Your task to perform on an android device: Empty the shopping cart on ebay.com. Add "macbook pro" to the cart on ebay.com, then select checkout. Image 0: 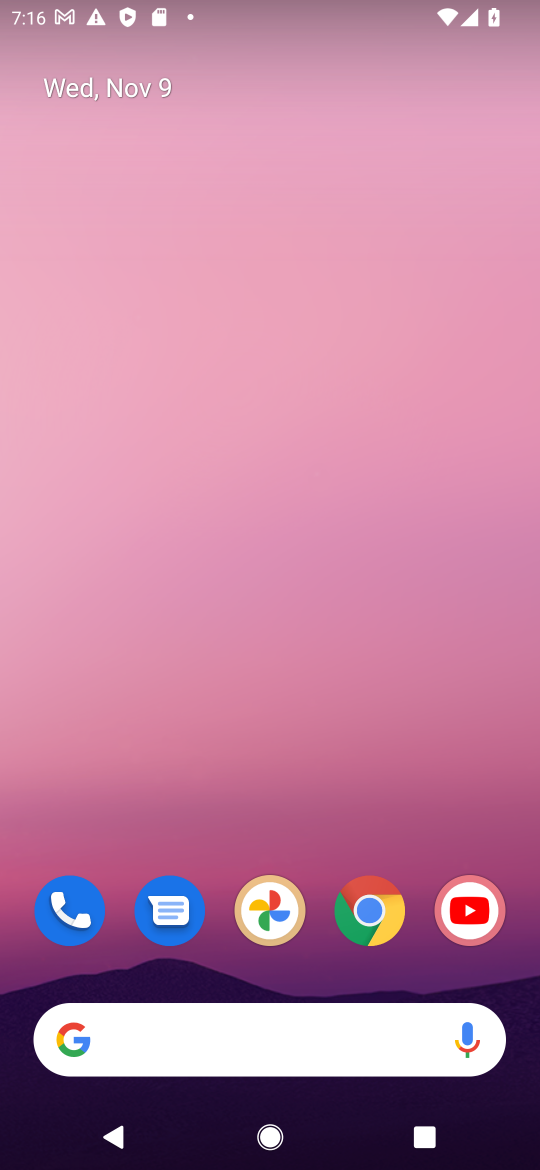
Step 0: click (368, 917)
Your task to perform on an android device: Empty the shopping cart on ebay.com. Add "macbook pro" to the cart on ebay.com, then select checkout. Image 1: 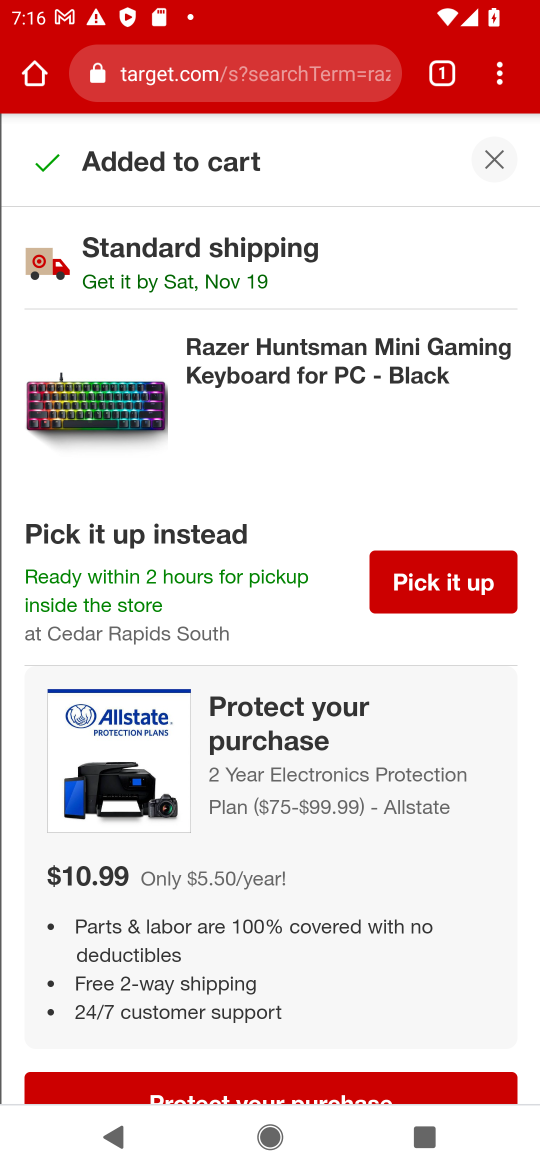
Step 1: click (215, 66)
Your task to perform on an android device: Empty the shopping cart on ebay.com. Add "macbook pro" to the cart on ebay.com, then select checkout. Image 2: 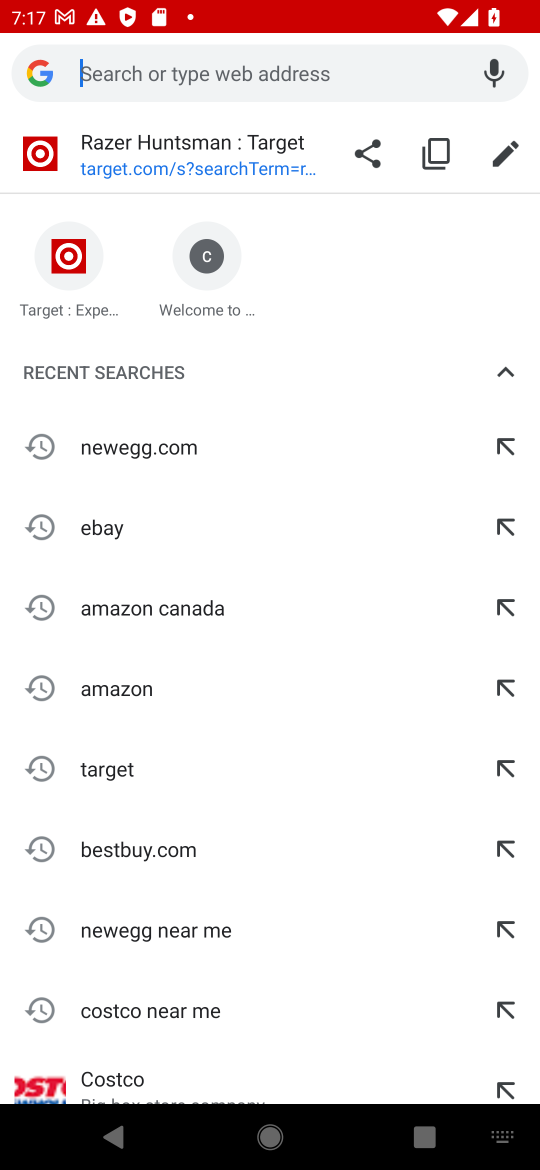
Step 2: type "ebay.com"
Your task to perform on an android device: Empty the shopping cart on ebay.com. Add "macbook pro" to the cart on ebay.com, then select checkout. Image 3: 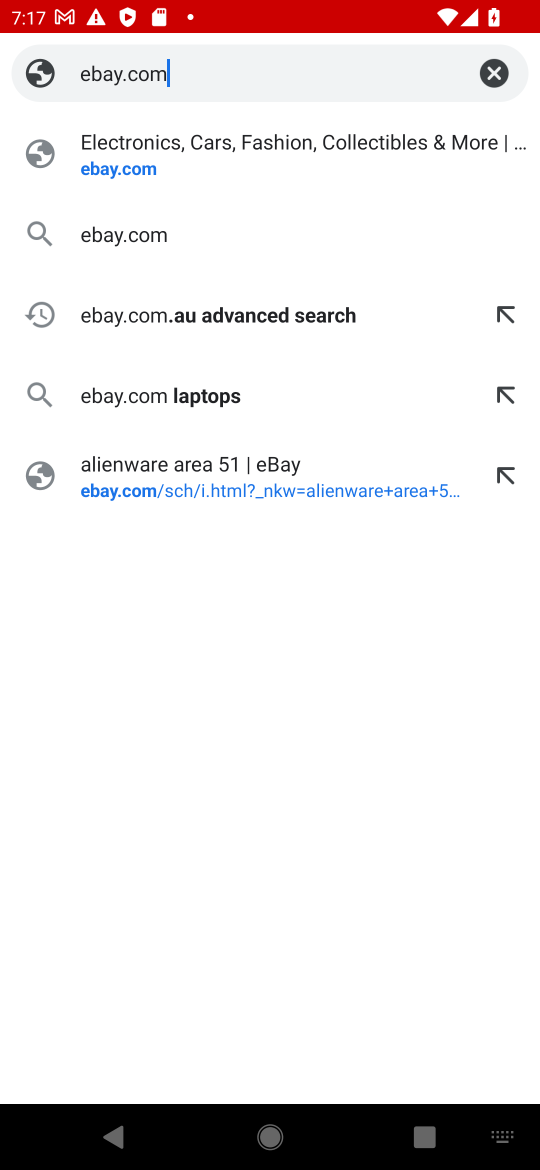
Step 3: click (105, 162)
Your task to perform on an android device: Empty the shopping cart on ebay.com. Add "macbook pro" to the cart on ebay.com, then select checkout. Image 4: 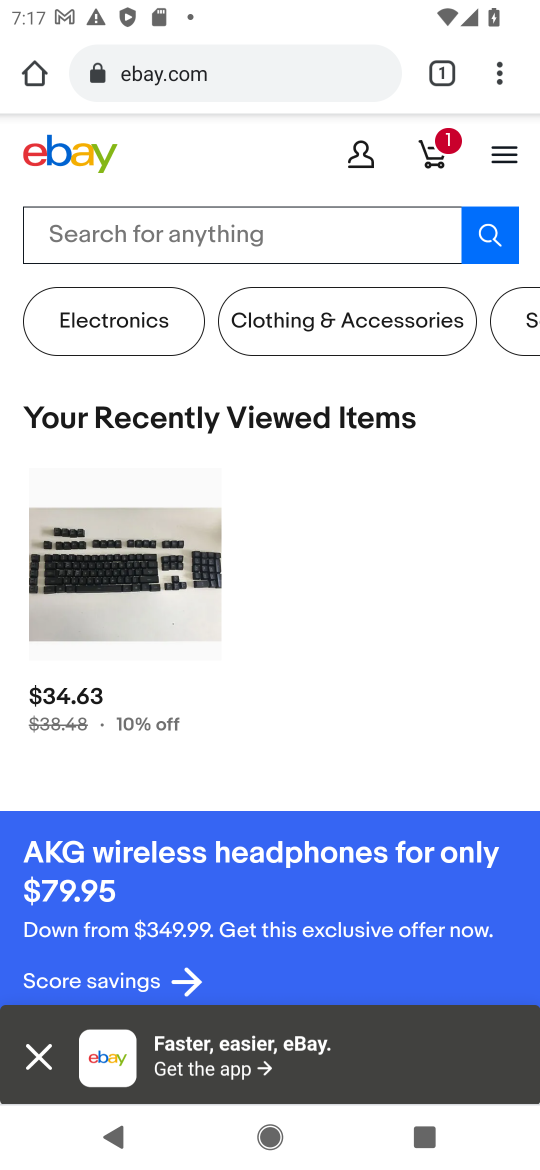
Step 4: click (440, 161)
Your task to perform on an android device: Empty the shopping cart on ebay.com. Add "macbook pro" to the cart on ebay.com, then select checkout. Image 5: 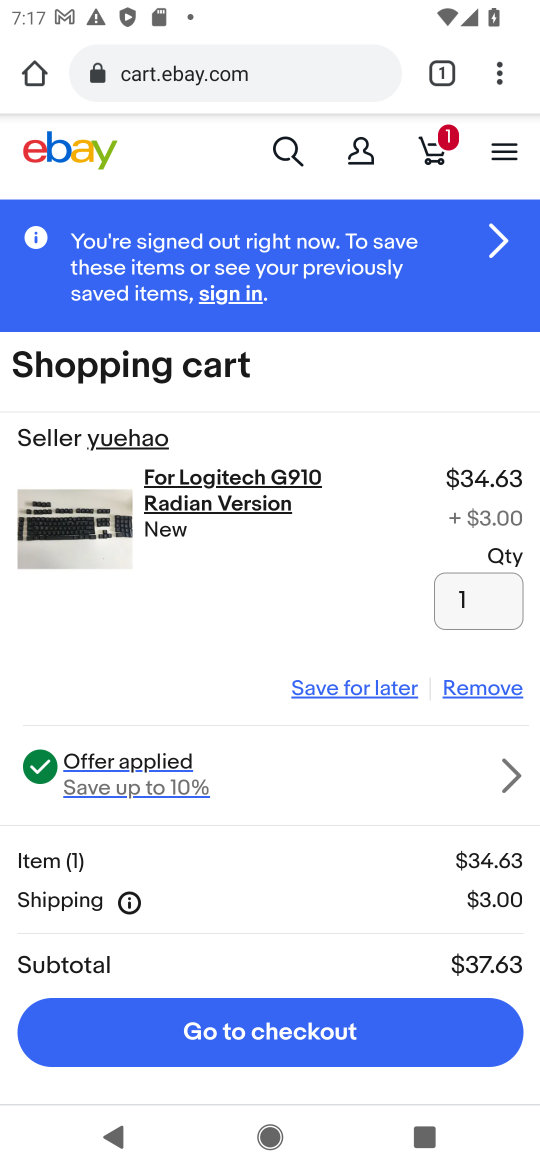
Step 5: click (455, 690)
Your task to perform on an android device: Empty the shopping cart on ebay.com. Add "macbook pro" to the cart on ebay.com, then select checkout. Image 6: 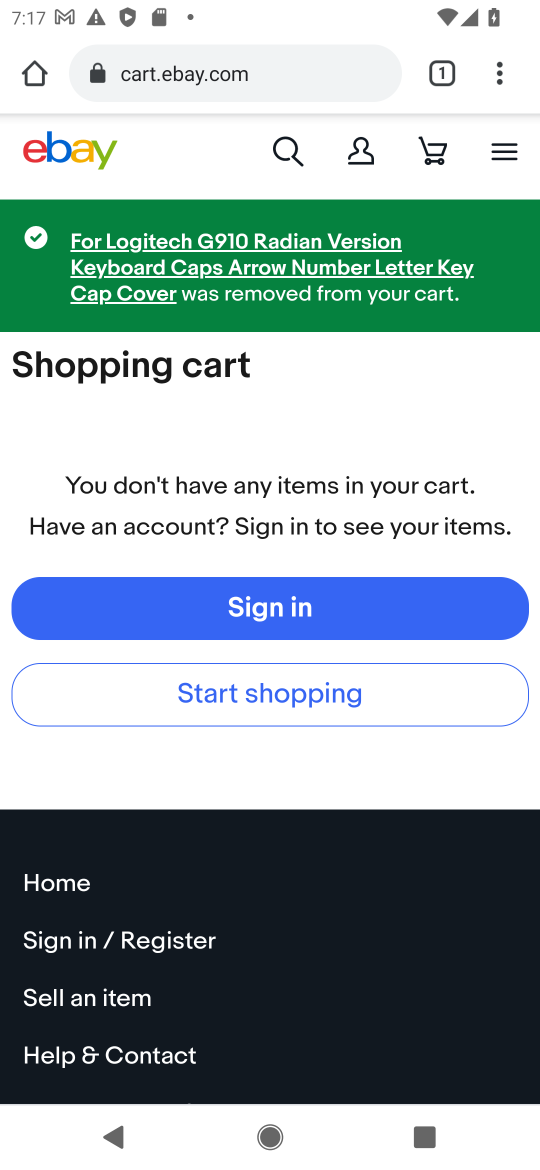
Step 6: click (279, 148)
Your task to perform on an android device: Empty the shopping cart on ebay.com. Add "macbook pro" to the cart on ebay.com, then select checkout. Image 7: 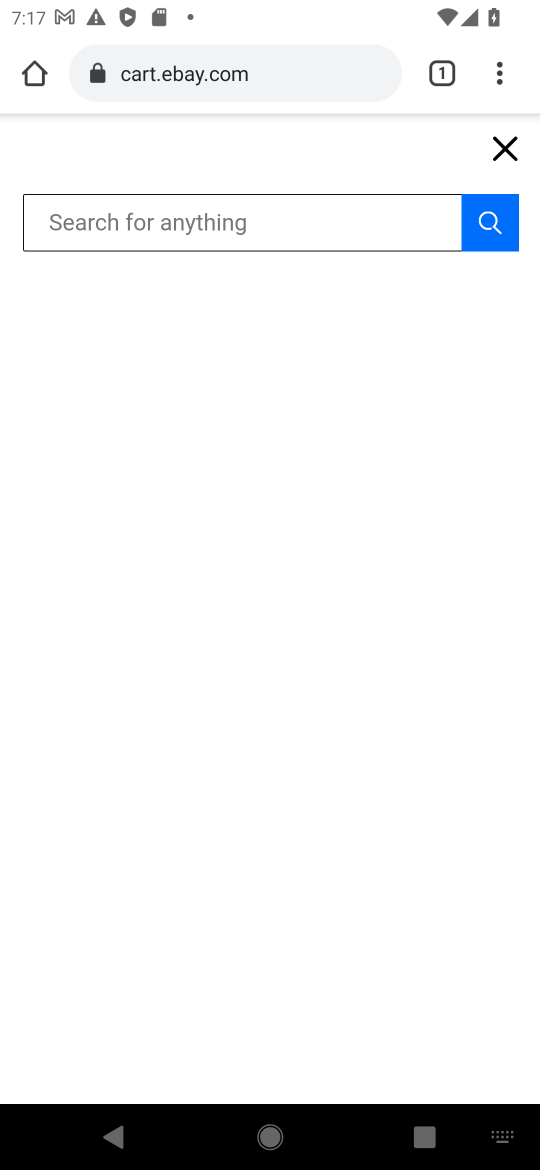
Step 7: type "macbook pro"
Your task to perform on an android device: Empty the shopping cart on ebay.com. Add "macbook pro" to the cart on ebay.com, then select checkout. Image 8: 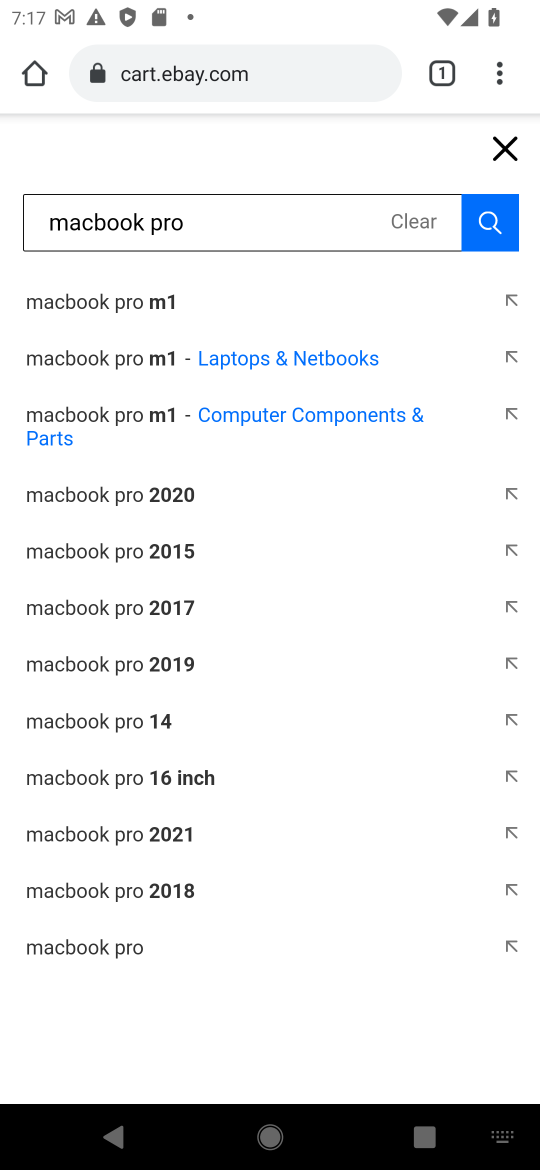
Step 8: click (117, 950)
Your task to perform on an android device: Empty the shopping cart on ebay.com. Add "macbook pro" to the cart on ebay.com, then select checkout. Image 9: 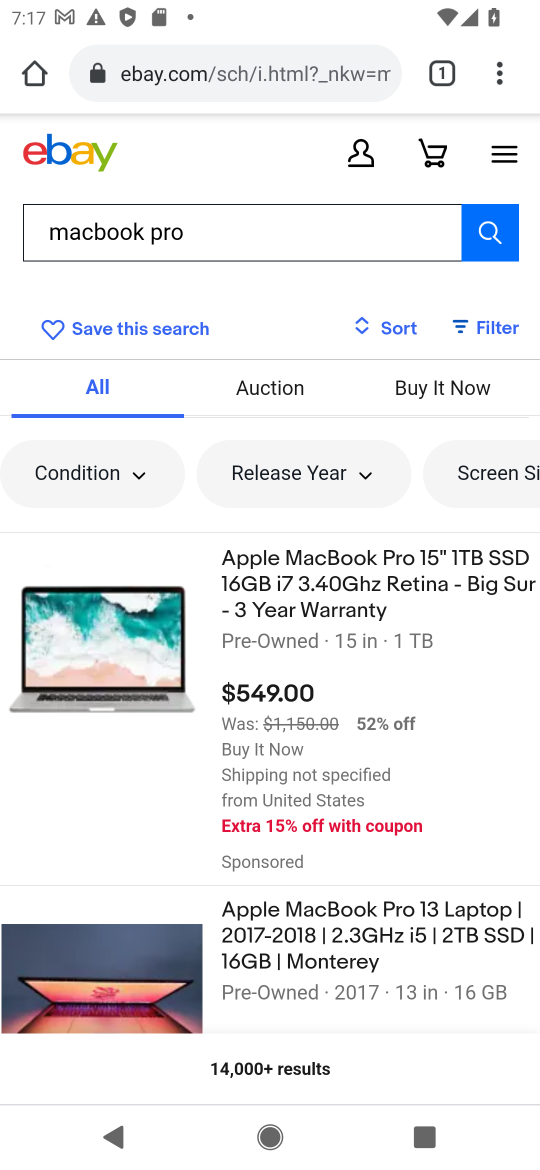
Step 9: click (233, 659)
Your task to perform on an android device: Empty the shopping cart on ebay.com. Add "macbook pro" to the cart on ebay.com, then select checkout. Image 10: 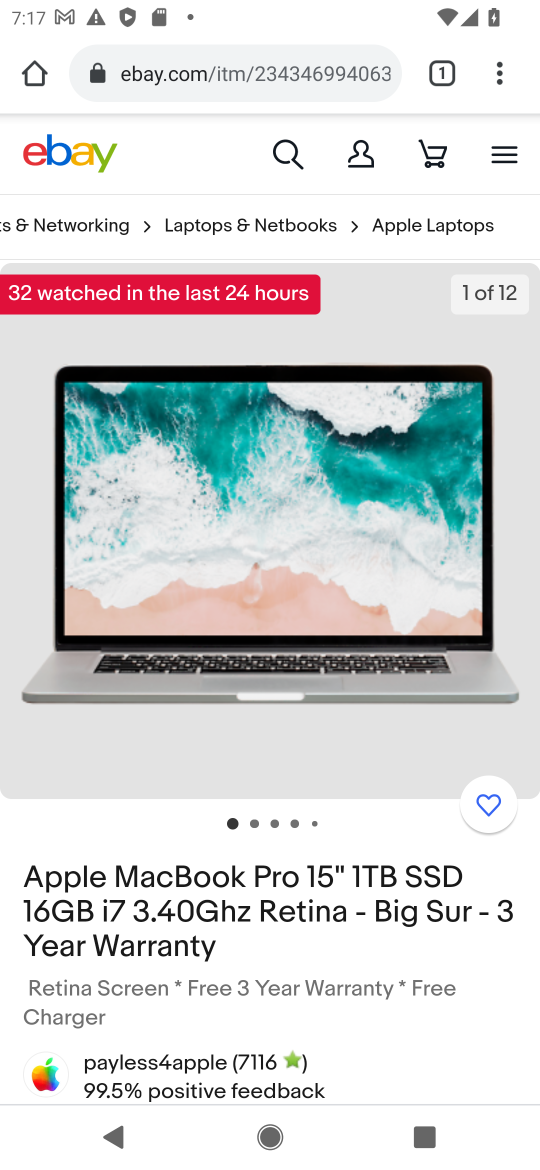
Step 10: drag from (288, 870) to (270, 308)
Your task to perform on an android device: Empty the shopping cart on ebay.com. Add "macbook pro" to the cart on ebay.com, then select checkout. Image 11: 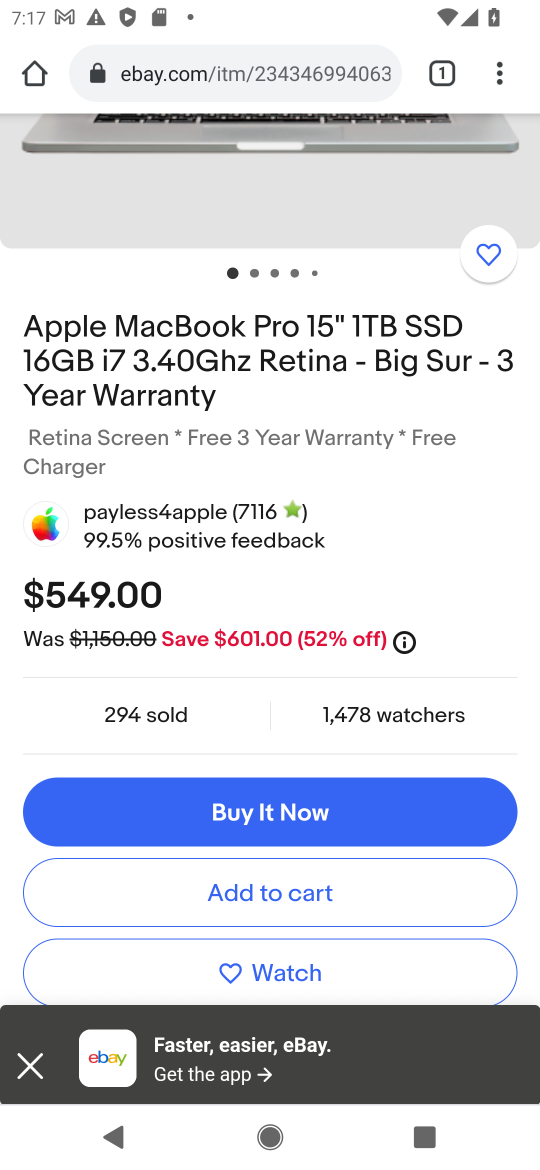
Step 11: click (254, 893)
Your task to perform on an android device: Empty the shopping cart on ebay.com. Add "macbook pro" to the cart on ebay.com, then select checkout. Image 12: 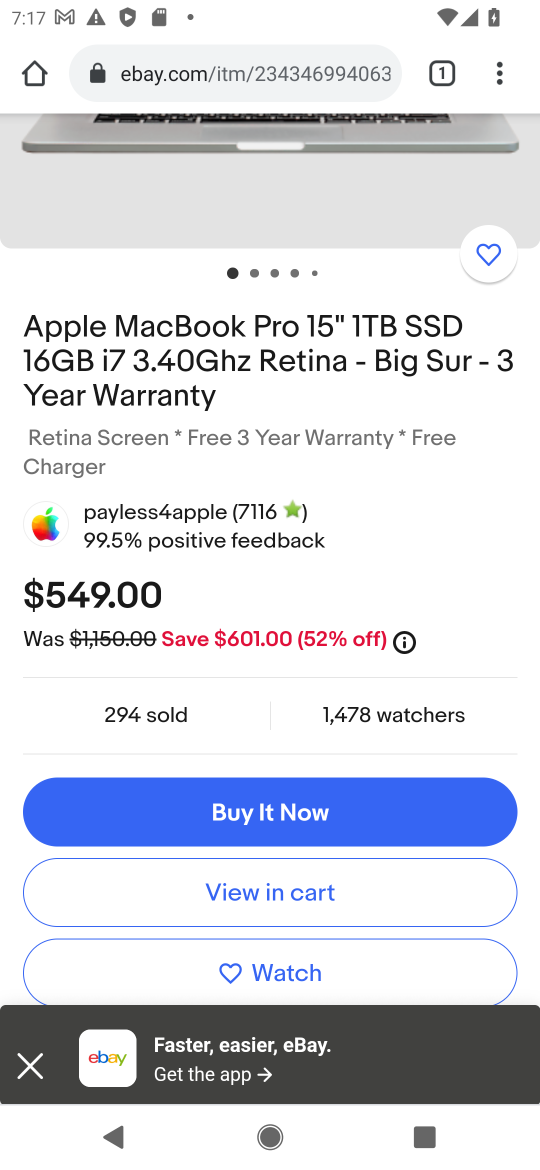
Step 12: click (284, 896)
Your task to perform on an android device: Empty the shopping cart on ebay.com. Add "macbook pro" to the cart on ebay.com, then select checkout. Image 13: 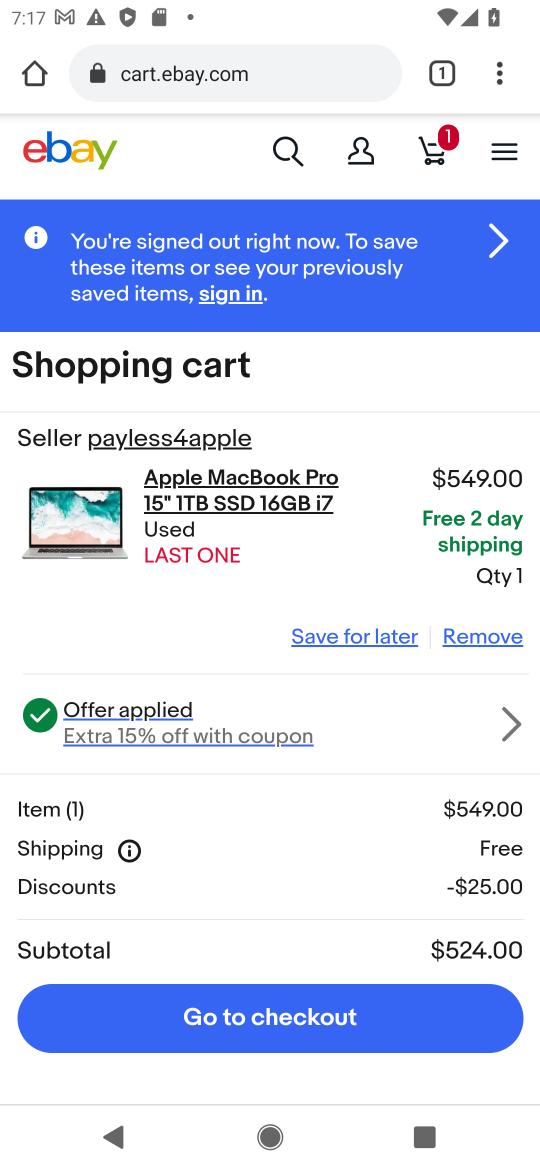
Step 13: click (231, 1005)
Your task to perform on an android device: Empty the shopping cart on ebay.com. Add "macbook pro" to the cart on ebay.com, then select checkout. Image 14: 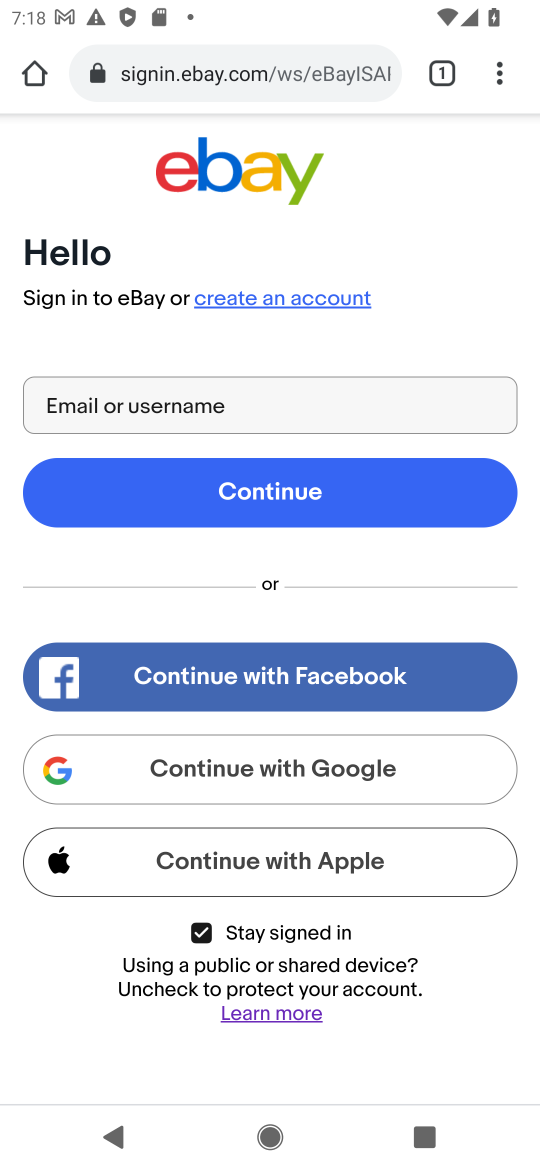
Step 14: task complete